Your task to perform on an android device: change notification settings in the gmail app Image 0: 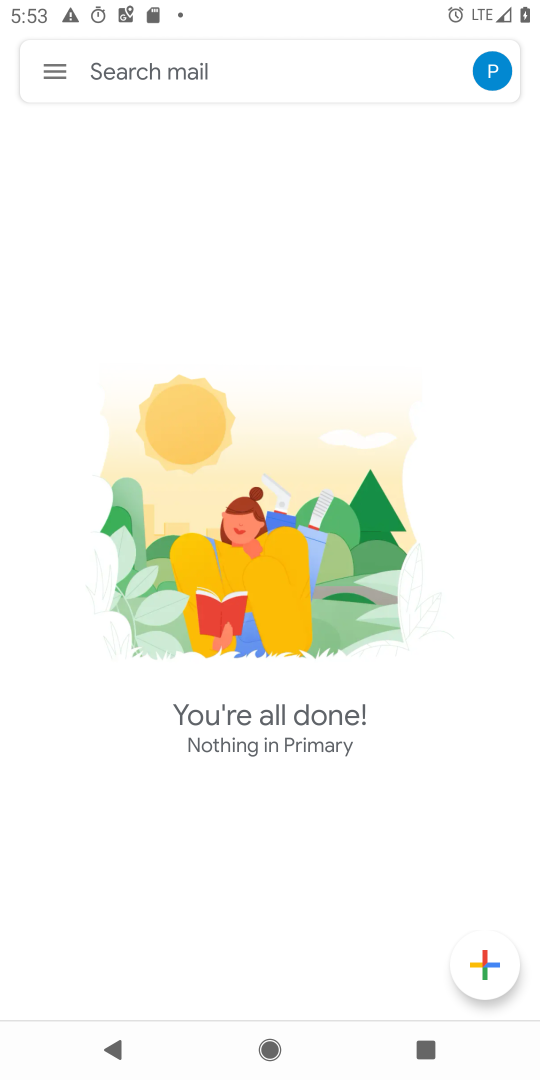
Step 0: press back button
Your task to perform on an android device: change notification settings in the gmail app Image 1: 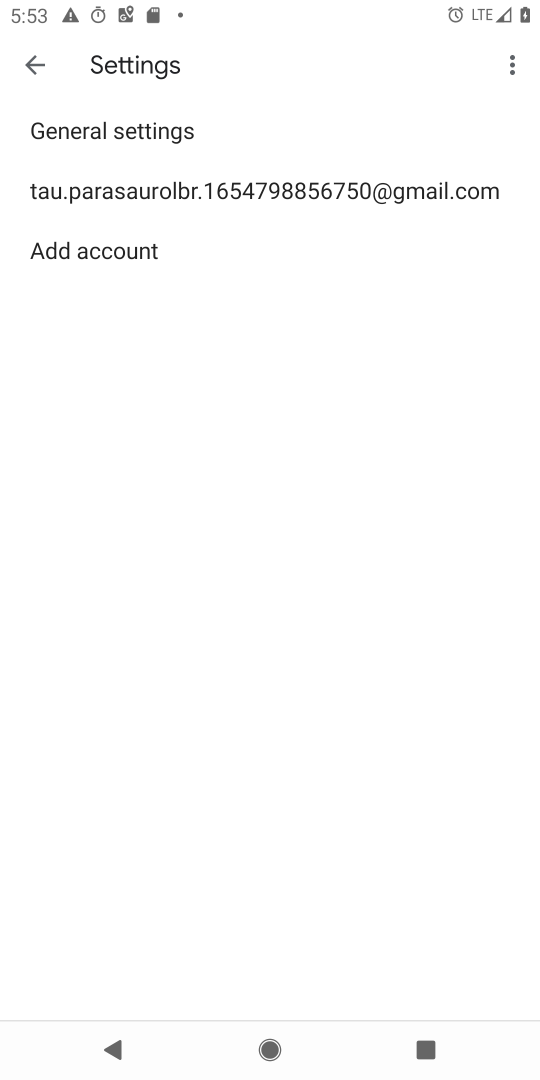
Step 1: press back button
Your task to perform on an android device: change notification settings in the gmail app Image 2: 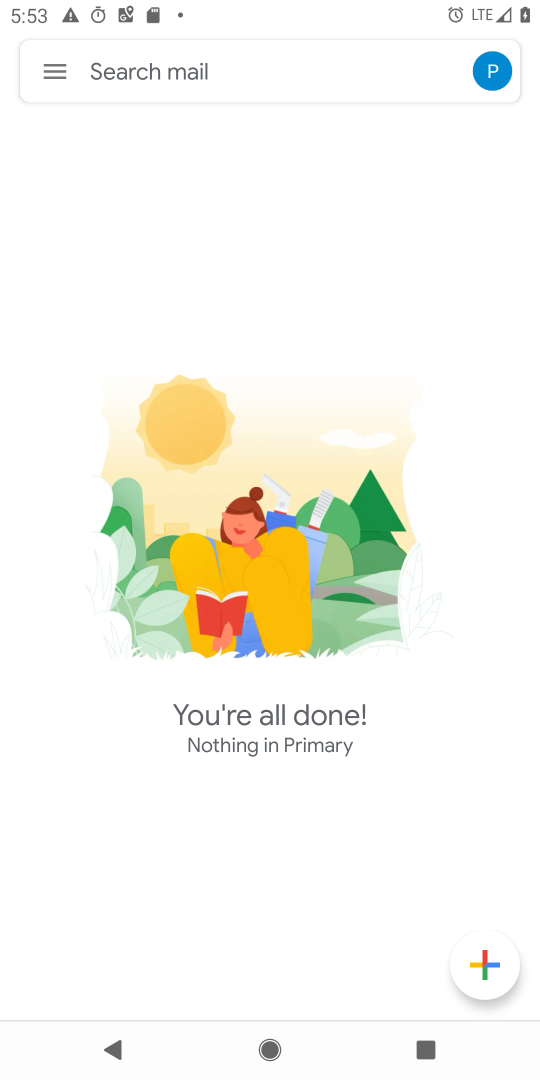
Step 2: press back button
Your task to perform on an android device: change notification settings in the gmail app Image 3: 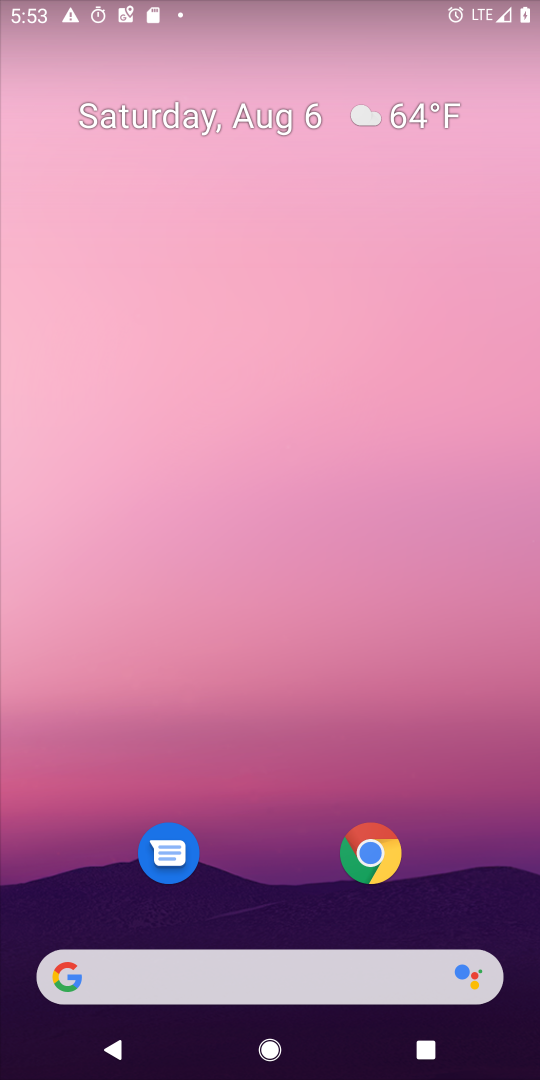
Step 3: drag from (244, 908) to (375, 265)
Your task to perform on an android device: change notification settings in the gmail app Image 4: 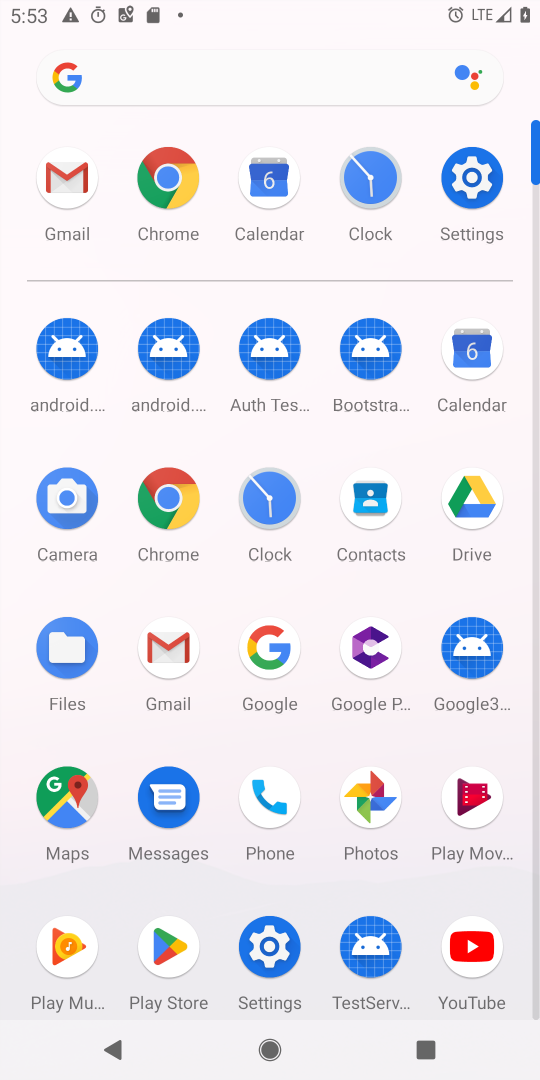
Step 4: click (74, 167)
Your task to perform on an android device: change notification settings in the gmail app Image 5: 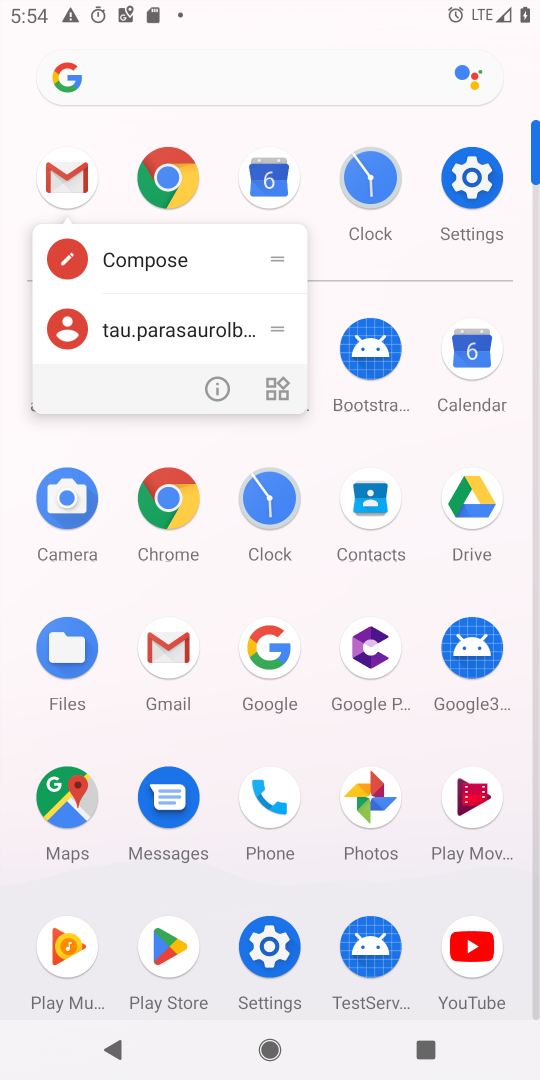
Step 5: click (211, 375)
Your task to perform on an android device: change notification settings in the gmail app Image 6: 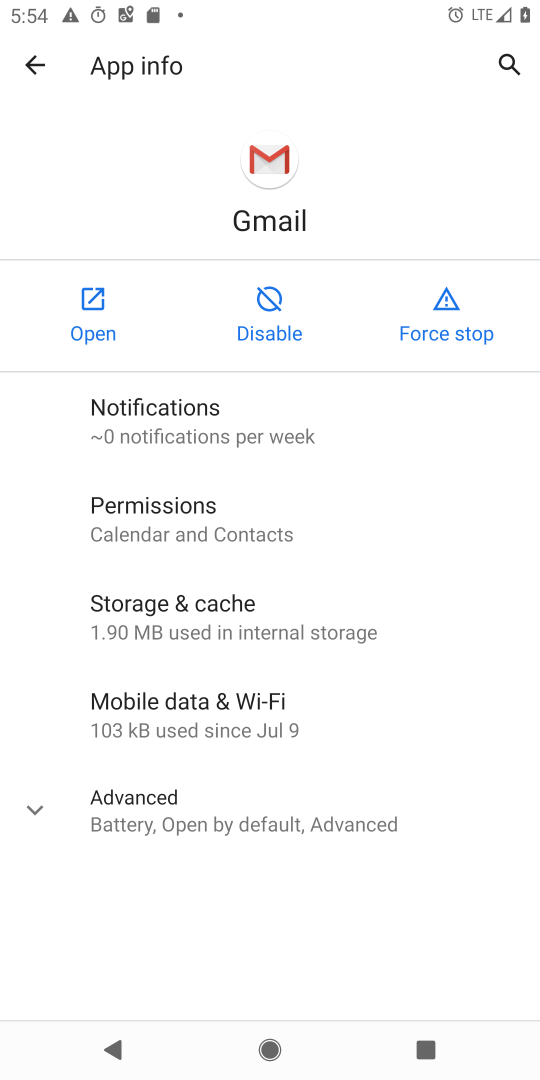
Step 6: click (188, 411)
Your task to perform on an android device: change notification settings in the gmail app Image 7: 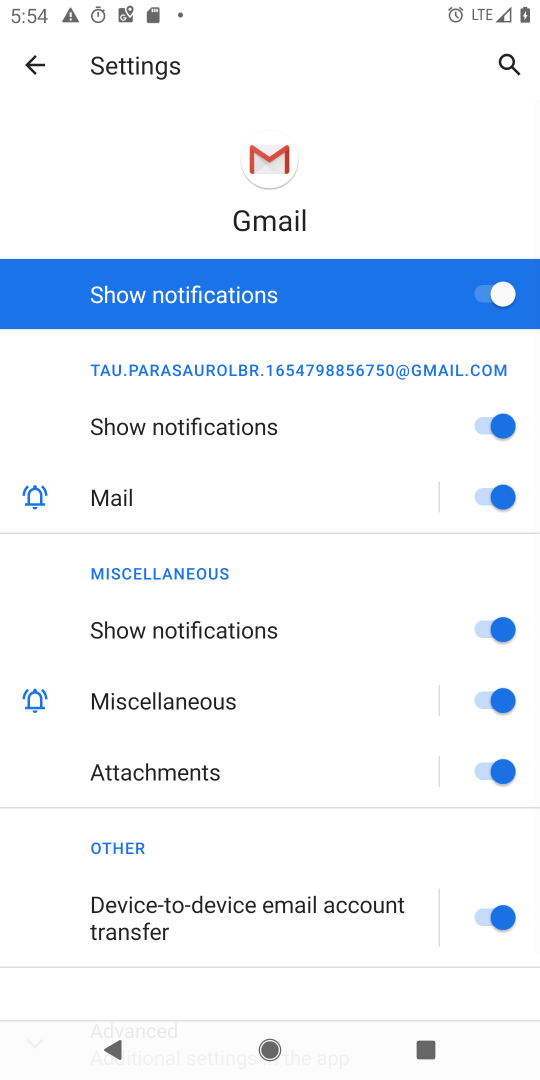
Step 7: click (496, 432)
Your task to perform on an android device: change notification settings in the gmail app Image 8: 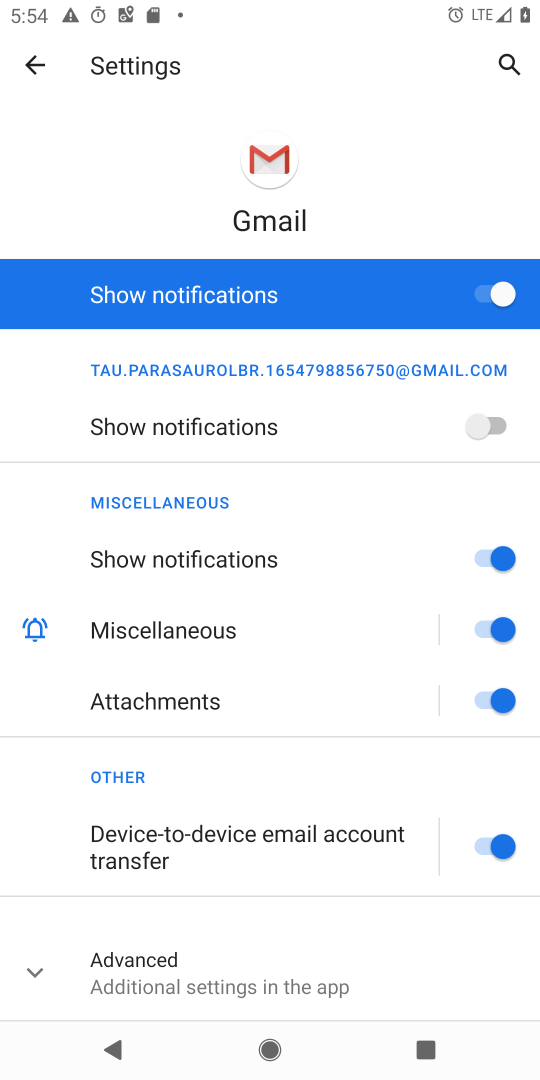
Step 8: task complete